Your task to perform on an android device: Search for pizza restaurants on Maps Image 0: 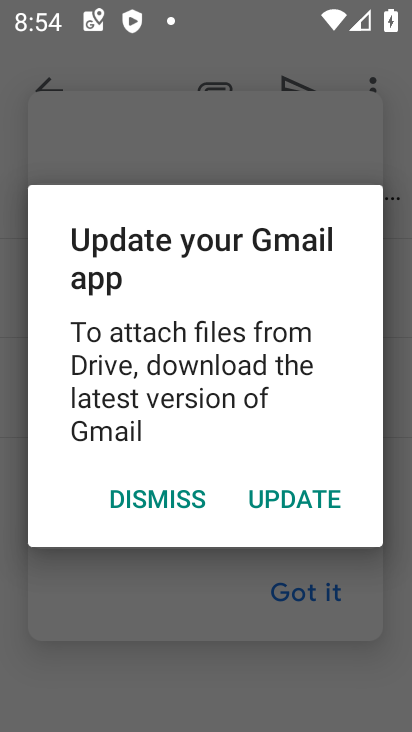
Step 0: press home button
Your task to perform on an android device: Search for pizza restaurants on Maps Image 1: 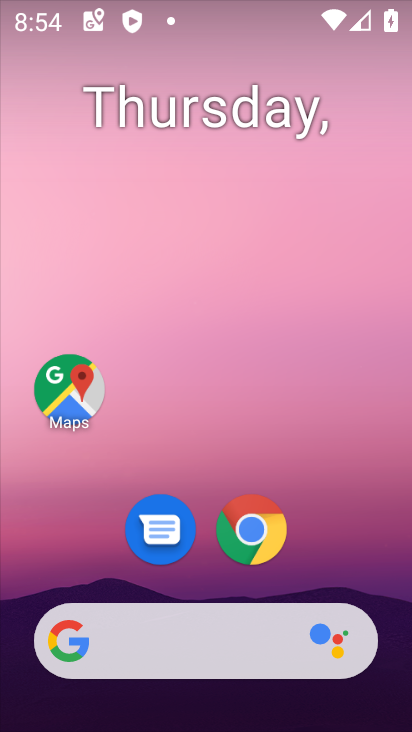
Step 1: drag from (213, 716) to (242, 477)
Your task to perform on an android device: Search for pizza restaurants on Maps Image 2: 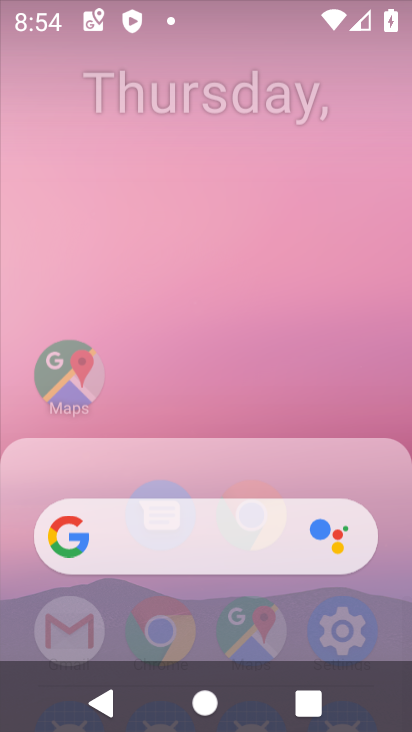
Step 2: drag from (258, 236) to (258, 36)
Your task to perform on an android device: Search for pizza restaurants on Maps Image 3: 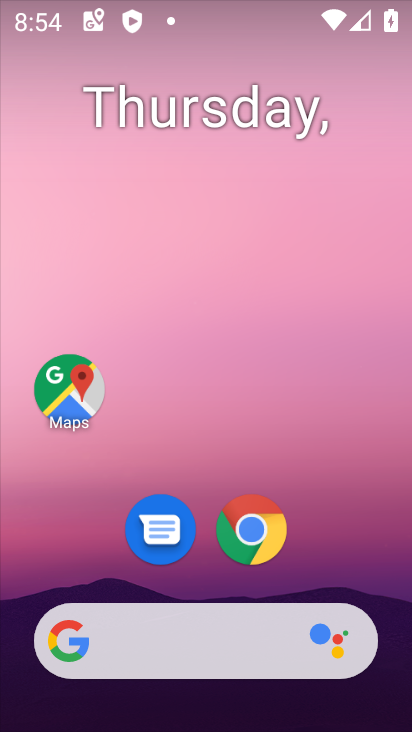
Step 3: drag from (217, 717) to (224, 507)
Your task to perform on an android device: Search for pizza restaurants on Maps Image 4: 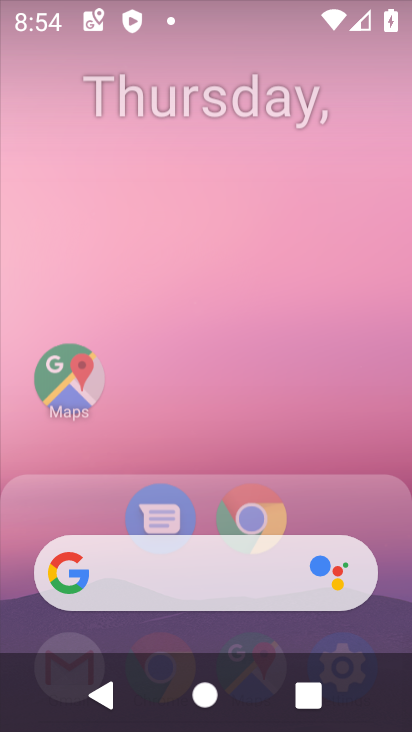
Step 4: click (227, 117)
Your task to perform on an android device: Search for pizza restaurants on Maps Image 5: 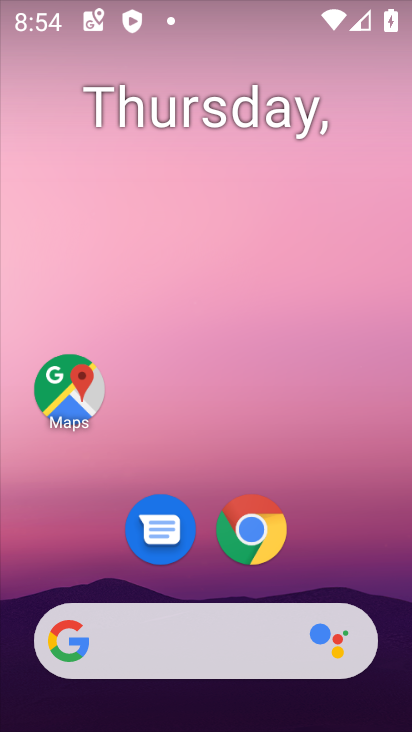
Step 5: drag from (197, 716) to (209, 563)
Your task to perform on an android device: Search for pizza restaurants on Maps Image 6: 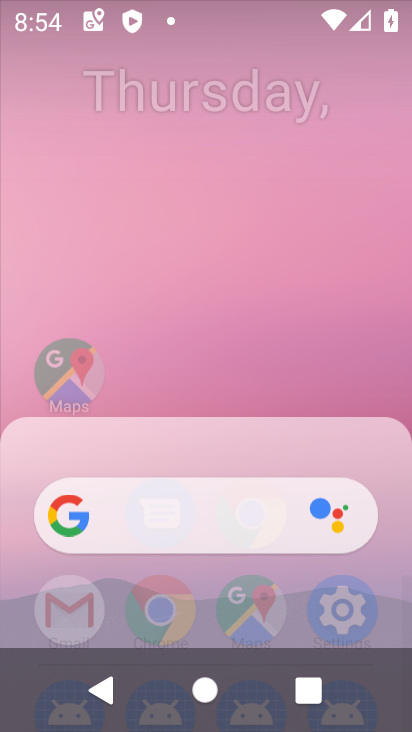
Step 6: drag from (214, 165) to (211, 124)
Your task to perform on an android device: Search for pizza restaurants on Maps Image 7: 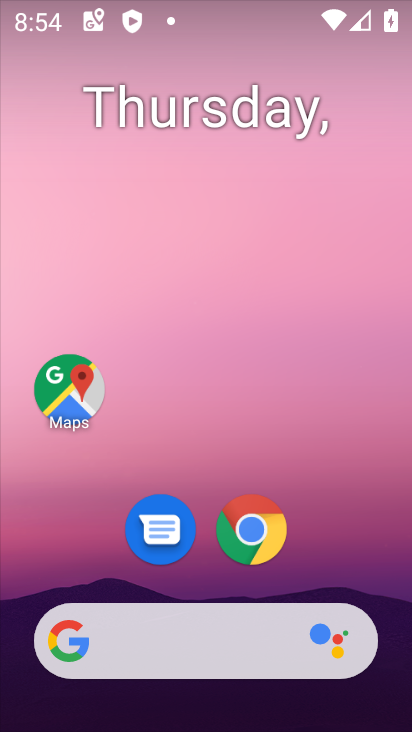
Step 7: drag from (147, 722) to (200, 18)
Your task to perform on an android device: Search for pizza restaurants on Maps Image 8: 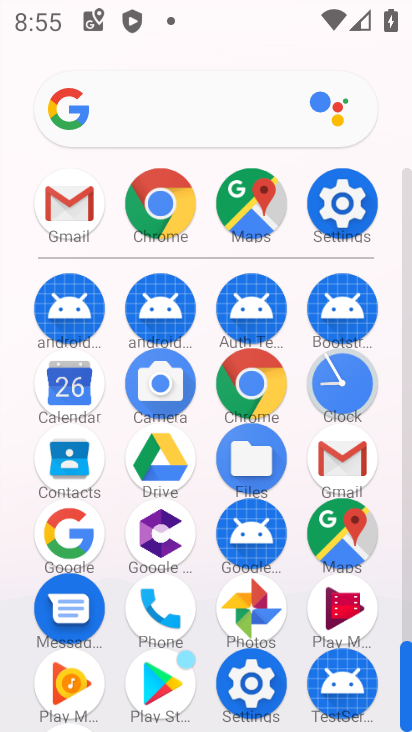
Step 8: click (347, 538)
Your task to perform on an android device: Search for pizza restaurants on Maps Image 9: 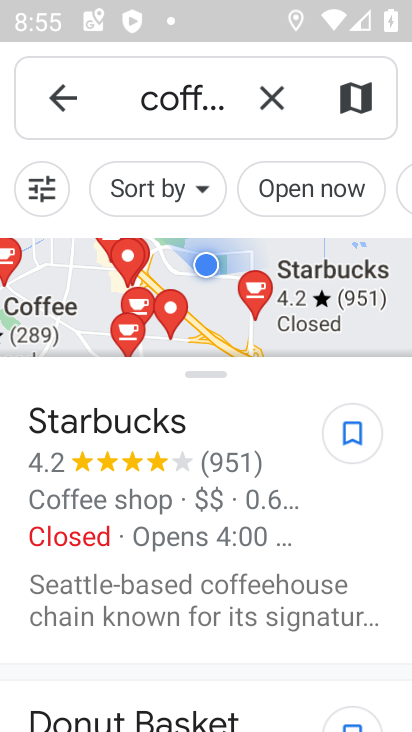
Step 9: click (267, 99)
Your task to perform on an android device: Search for pizza restaurants on Maps Image 10: 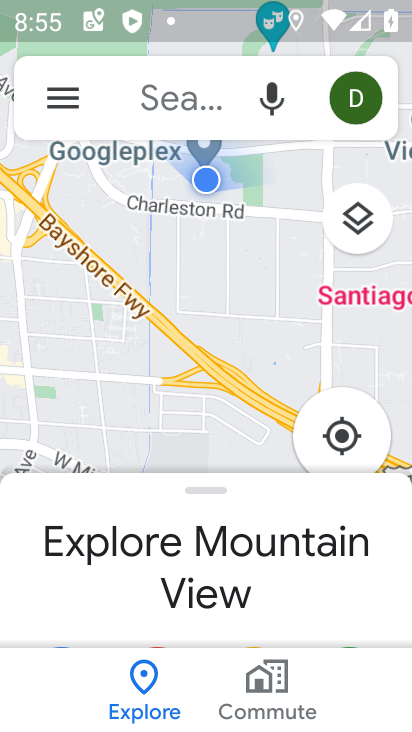
Step 10: click (162, 98)
Your task to perform on an android device: Search for pizza restaurants on Maps Image 11: 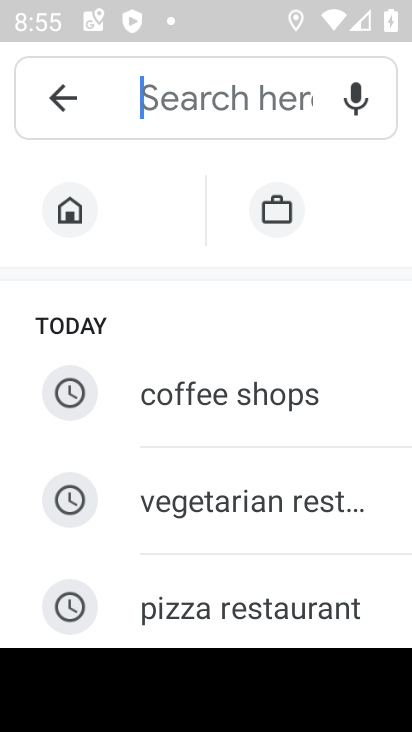
Step 11: type "pizza restaurants"
Your task to perform on an android device: Search for pizza restaurants on Maps Image 12: 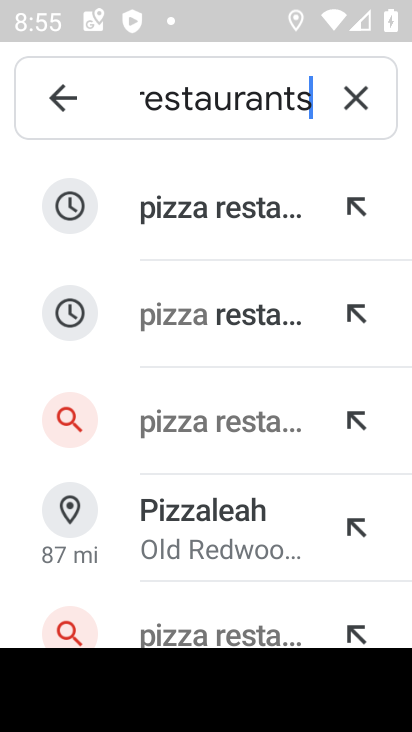
Step 12: click (199, 203)
Your task to perform on an android device: Search for pizza restaurants on Maps Image 13: 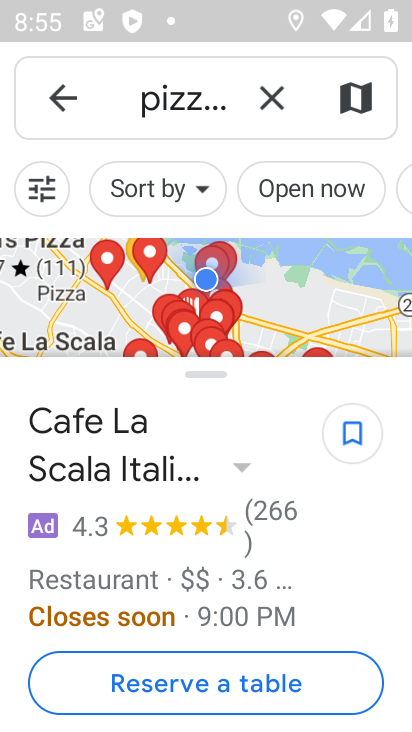
Step 13: task complete